Your task to perform on an android device: Go to settings Image 0: 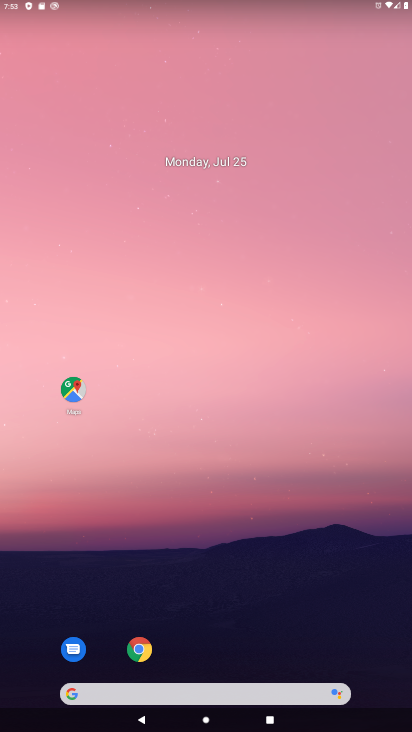
Step 0: drag from (373, 645) to (315, 90)
Your task to perform on an android device: Go to settings Image 1: 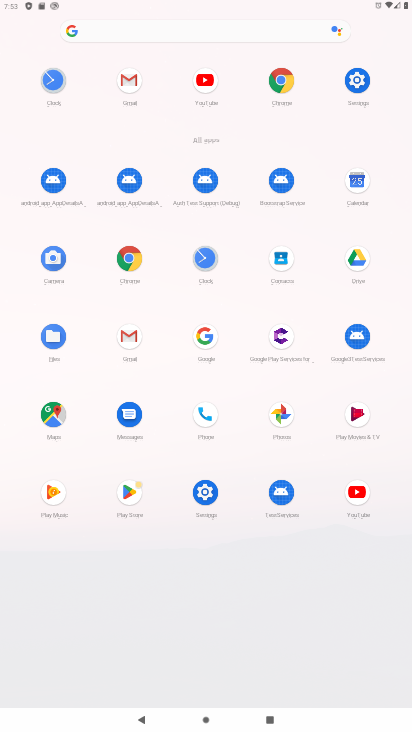
Step 1: click (207, 492)
Your task to perform on an android device: Go to settings Image 2: 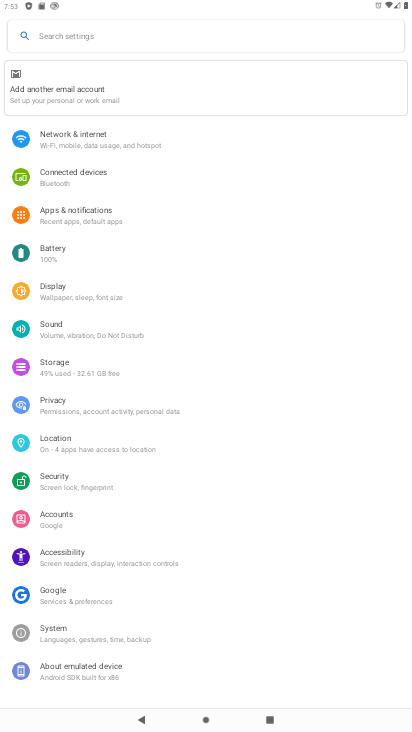
Step 2: task complete